Your task to perform on an android device: Open internet settings Image 0: 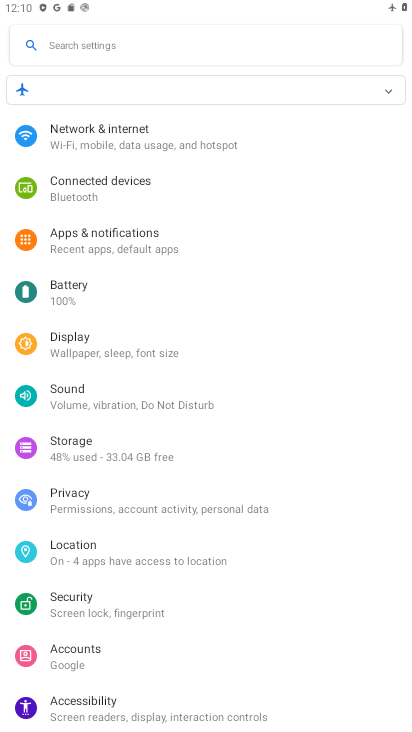
Step 0: click (222, 137)
Your task to perform on an android device: Open internet settings Image 1: 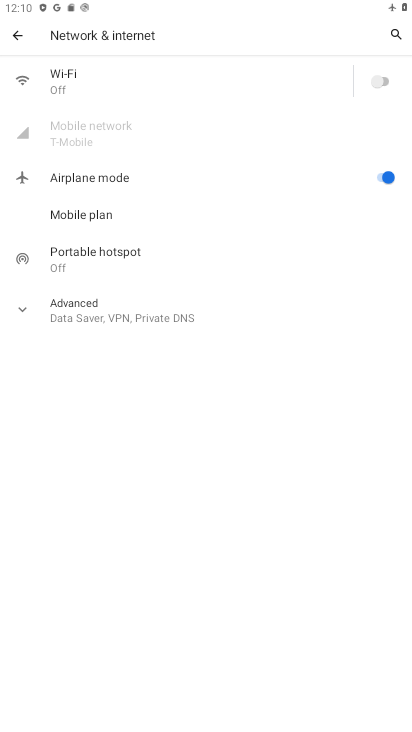
Step 1: task complete